Your task to perform on an android device: Go to network settings Image 0: 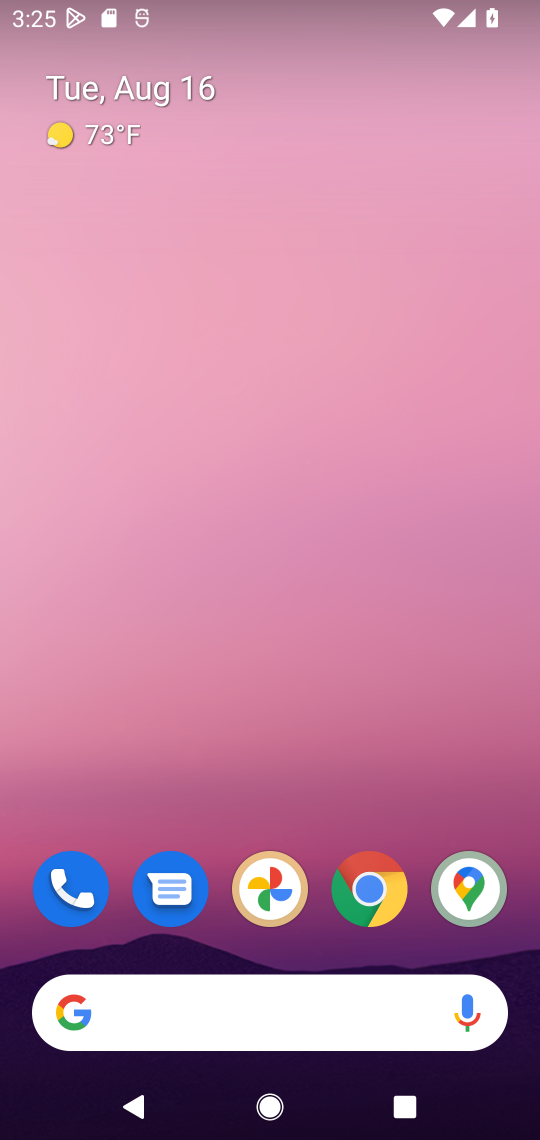
Step 0: drag from (316, 791) to (328, 363)
Your task to perform on an android device: Go to network settings Image 1: 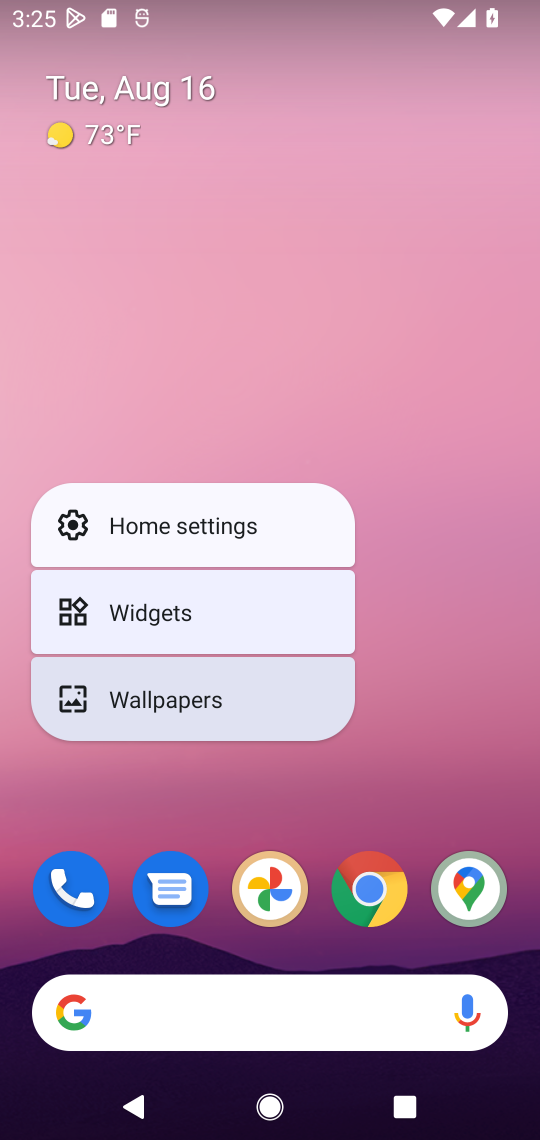
Step 1: click (437, 725)
Your task to perform on an android device: Go to network settings Image 2: 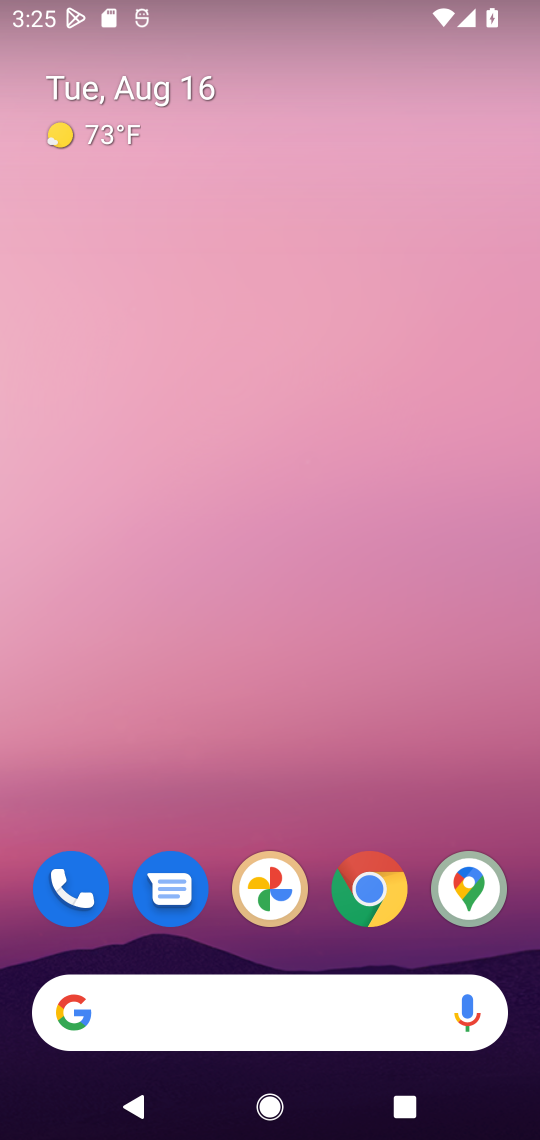
Step 2: drag from (351, 687) to (323, 249)
Your task to perform on an android device: Go to network settings Image 3: 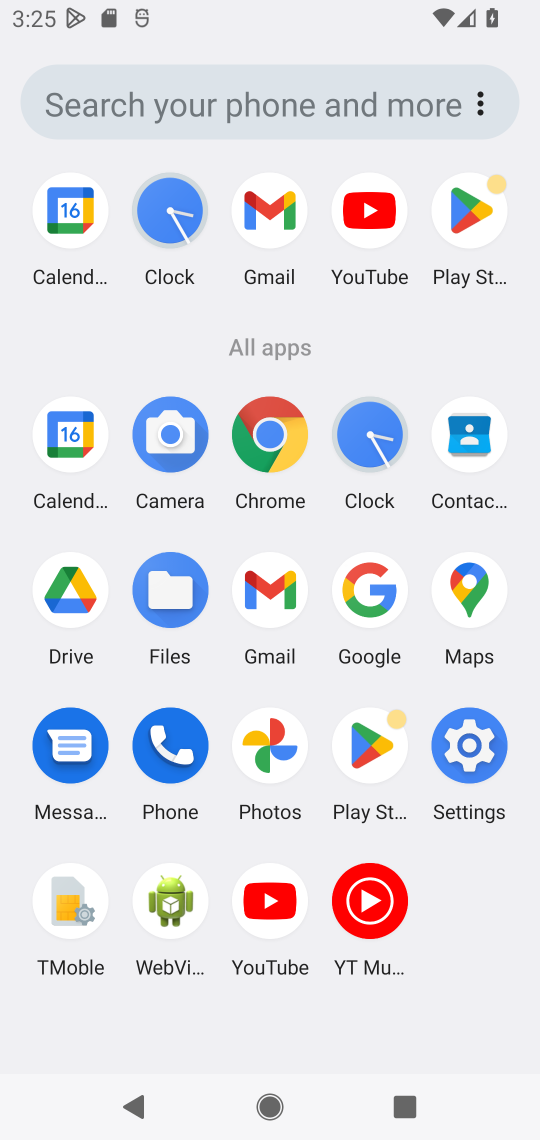
Step 3: click (466, 896)
Your task to perform on an android device: Go to network settings Image 4: 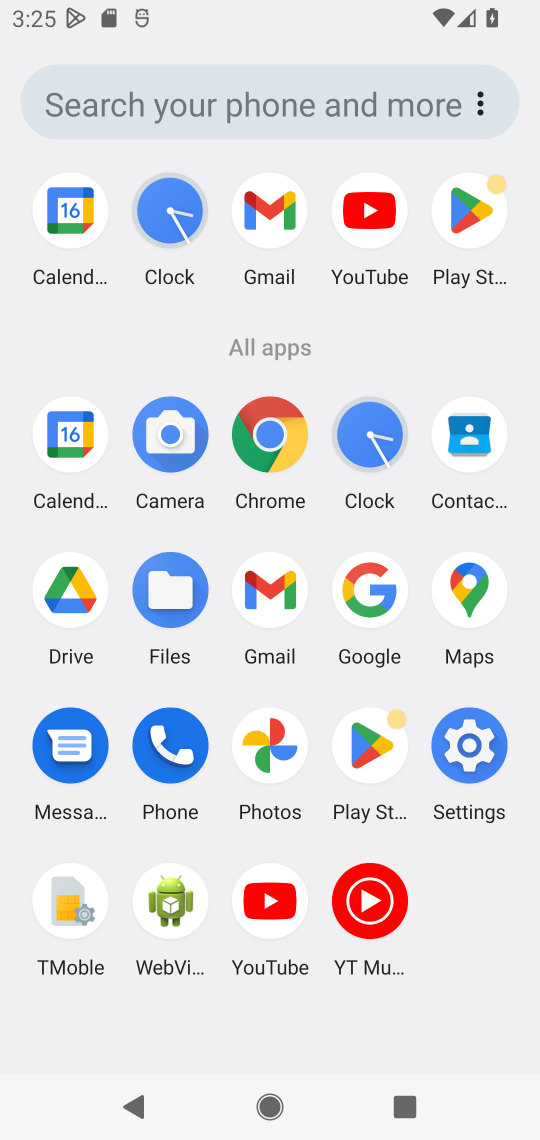
Step 4: click (482, 759)
Your task to perform on an android device: Go to network settings Image 5: 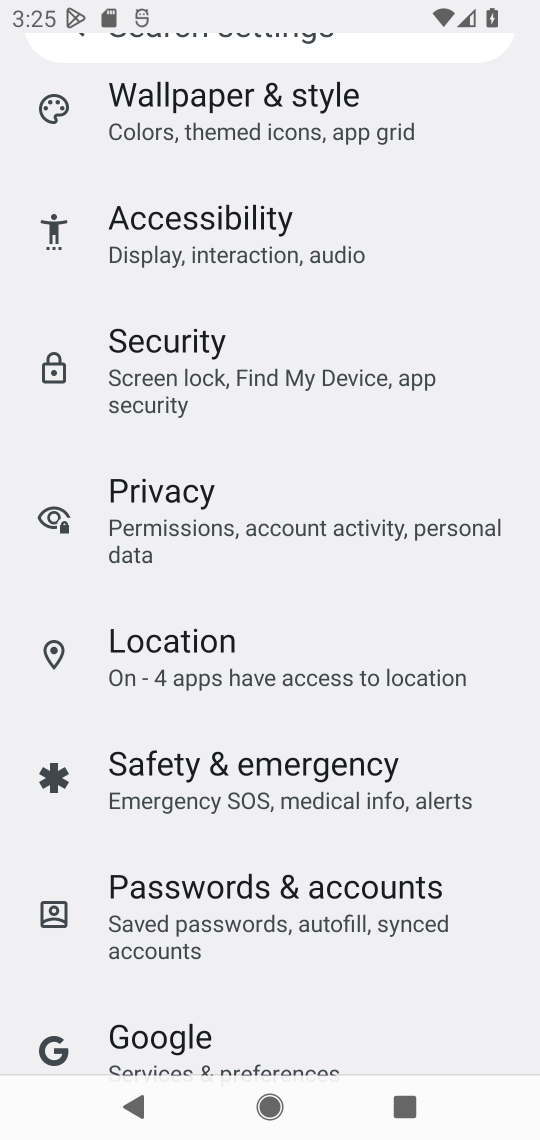
Step 5: task complete